Your task to perform on an android device: open device folders in google photos Image 0: 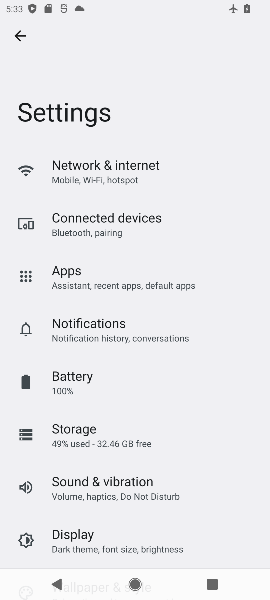
Step 0: press home button
Your task to perform on an android device: open device folders in google photos Image 1: 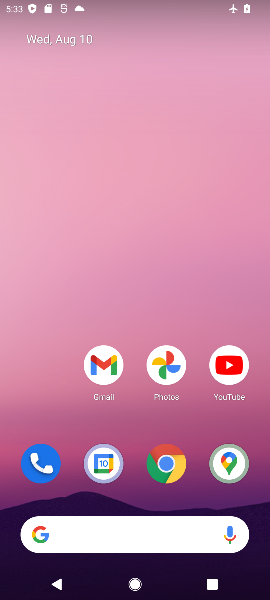
Step 1: click (171, 372)
Your task to perform on an android device: open device folders in google photos Image 2: 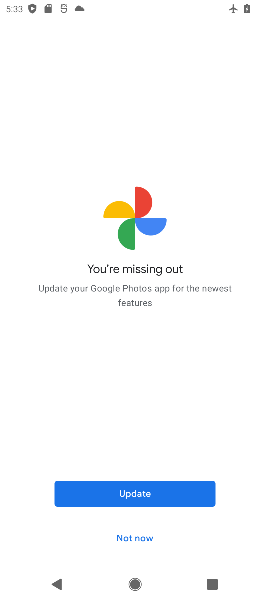
Step 2: click (116, 500)
Your task to perform on an android device: open device folders in google photos Image 3: 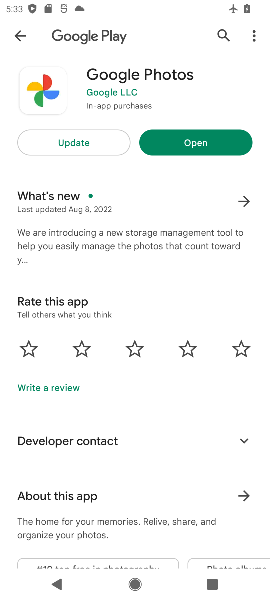
Step 3: click (59, 137)
Your task to perform on an android device: open device folders in google photos Image 4: 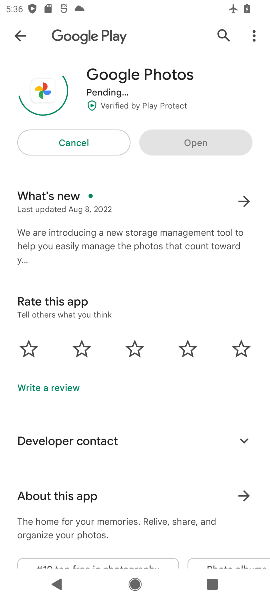
Step 4: task complete